Your task to perform on an android device: Show the shopping cart on newegg.com. Search for logitech g pro on newegg.com, select the first entry, add it to the cart, then select checkout. Image 0: 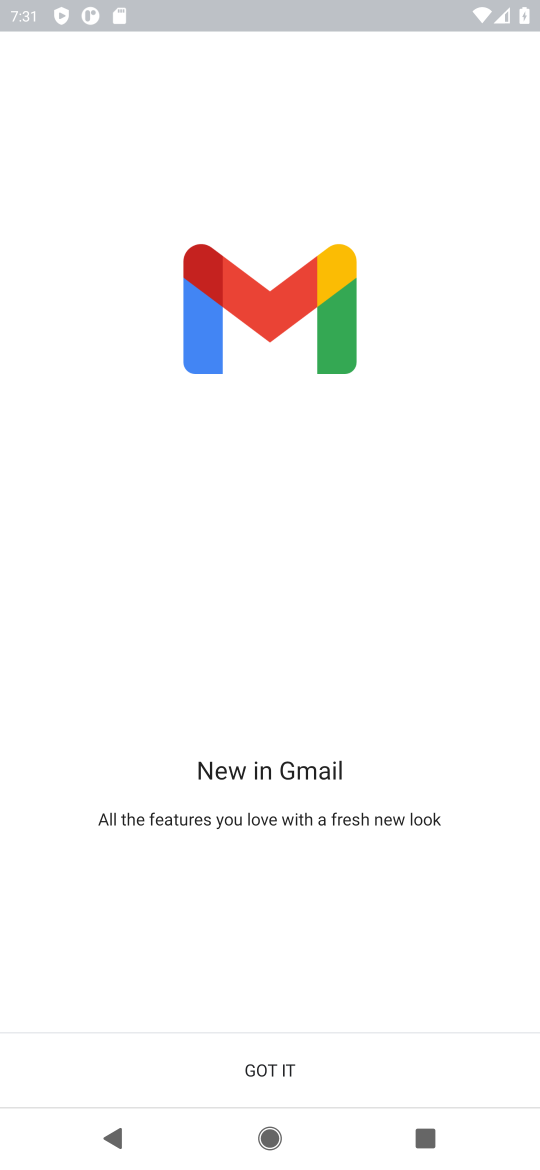
Step 0: press home button
Your task to perform on an android device: Show the shopping cart on newegg.com. Search for logitech g pro on newegg.com, select the first entry, add it to the cart, then select checkout. Image 1: 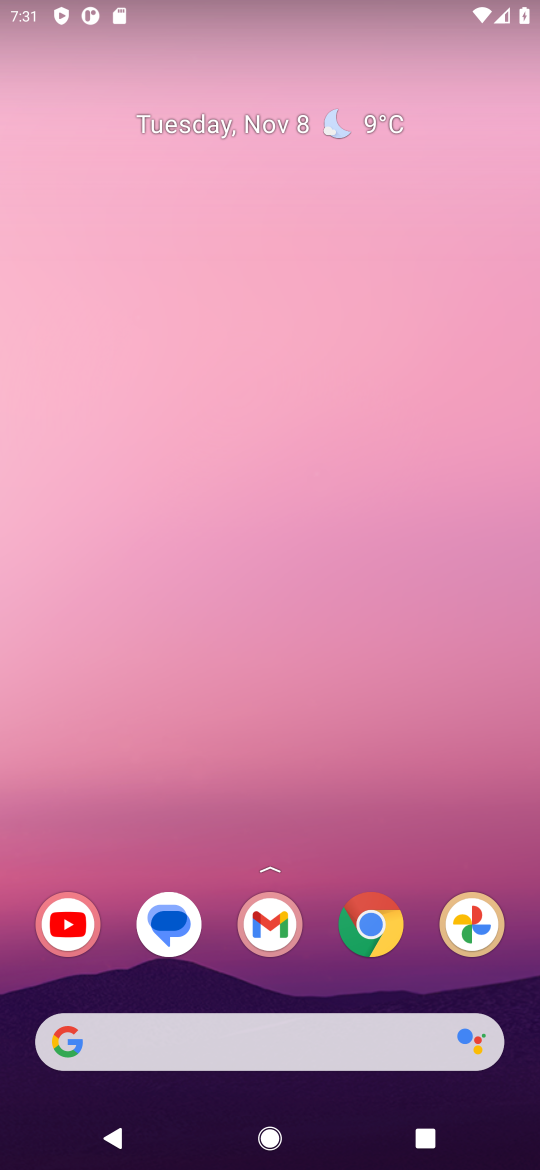
Step 1: drag from (232, 971) to (161, 161)
Your task to perform on an android device: Show the shopping cart on newegg.com. Search for logitech g pro on newegg.com, select the first entry, add it to the cart, then select checkout. Image 2: 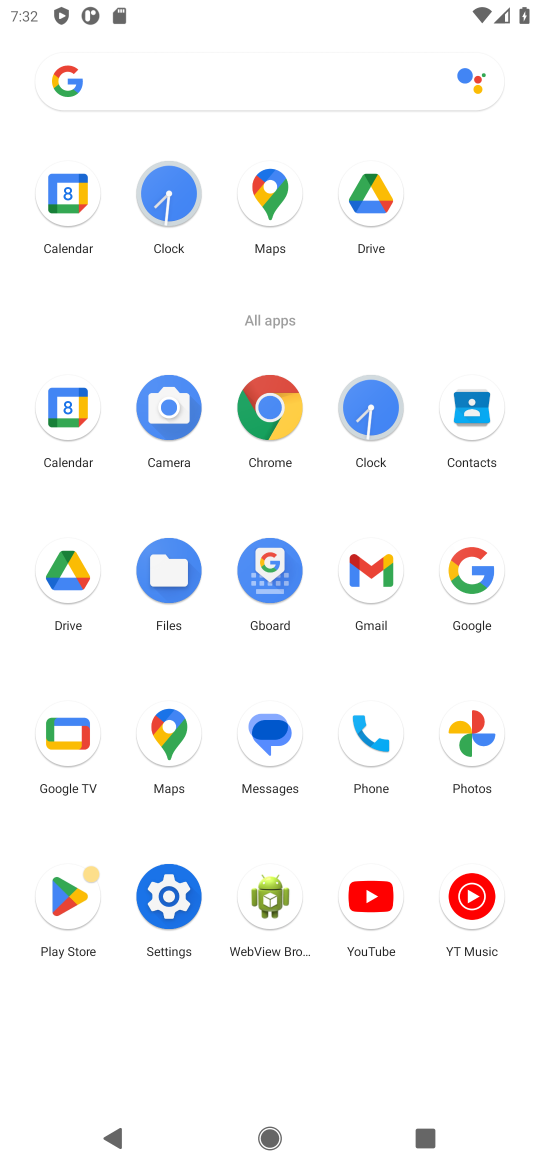
Step 2: click (458, 567)
Your task to perform on an android device: Show the shopping cart on newegg.com. Search for logitech g pro on newegg.com, select the first entry, add it to the cart, then select checkout. Image 3: 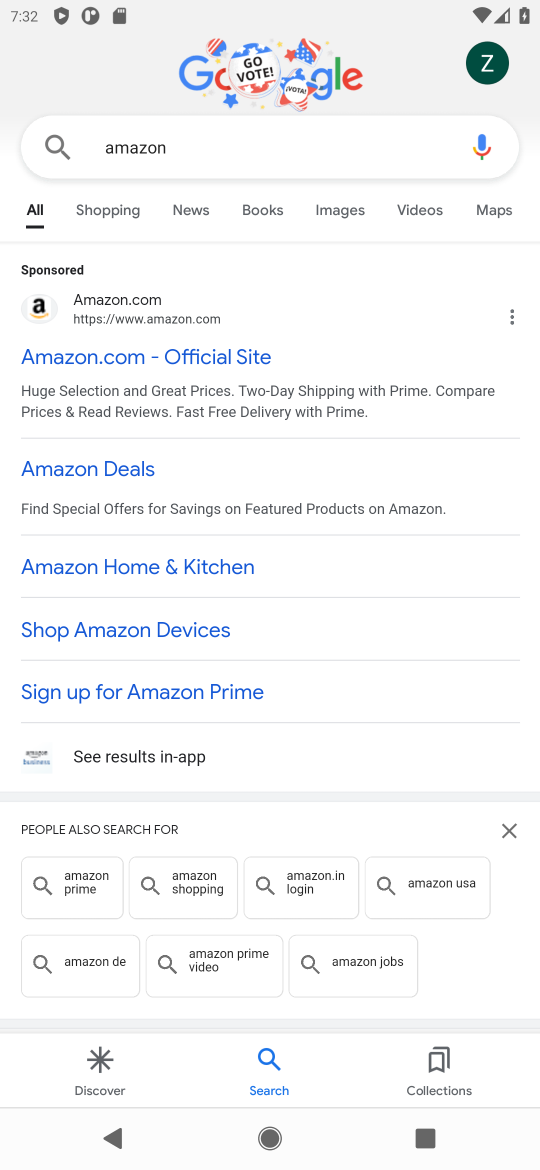
Step 3: click (235, 160)
Your task to perform on an android device: Show the shopping cart on newegg.com. Search for logitech g pro on newegg.com, select the first entry, add it to the cart, then select checkout. Image 4: 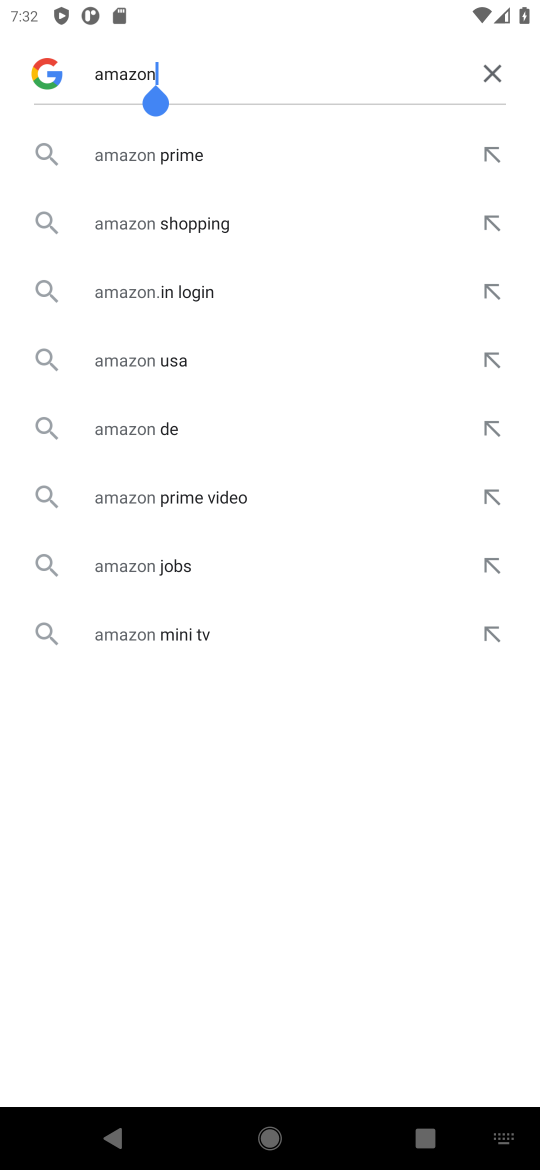
Step 4: click (489, 75)
Your task to perform on an android device: Show the shopping cart on newegg.com. Search for logitech g pro on newegg.com, select the first entry, add it to the cart, then select checkout. Image 5: 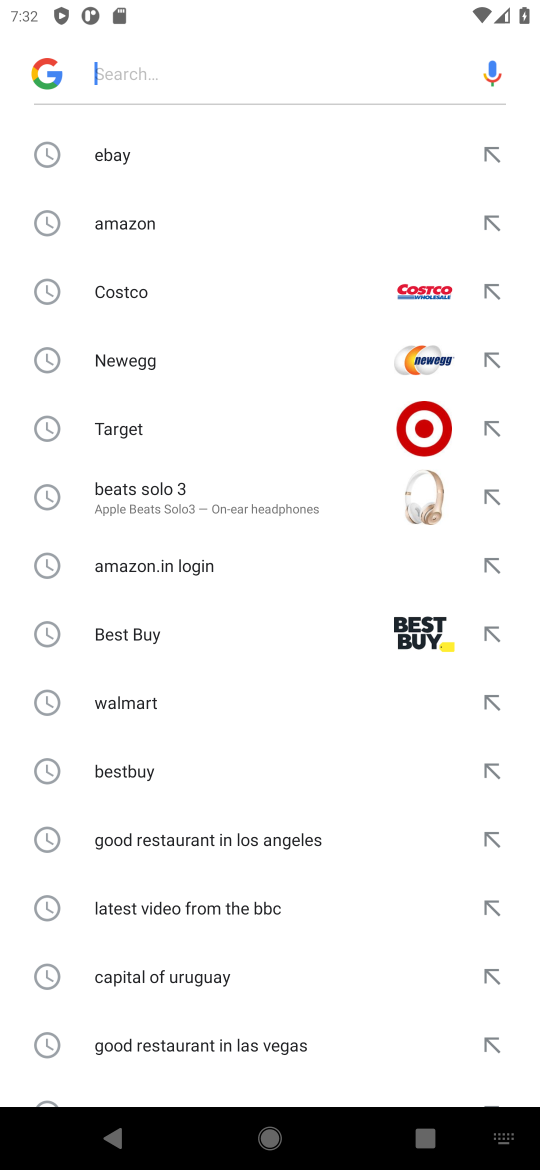
Step 5: type "newegg.com"
Your task to perform on an android device: Show the shopping cart on newegg.com. Search for logitech g pro on newegg.com, select the first entry, add it to the cart, then select checkout. Image 6: 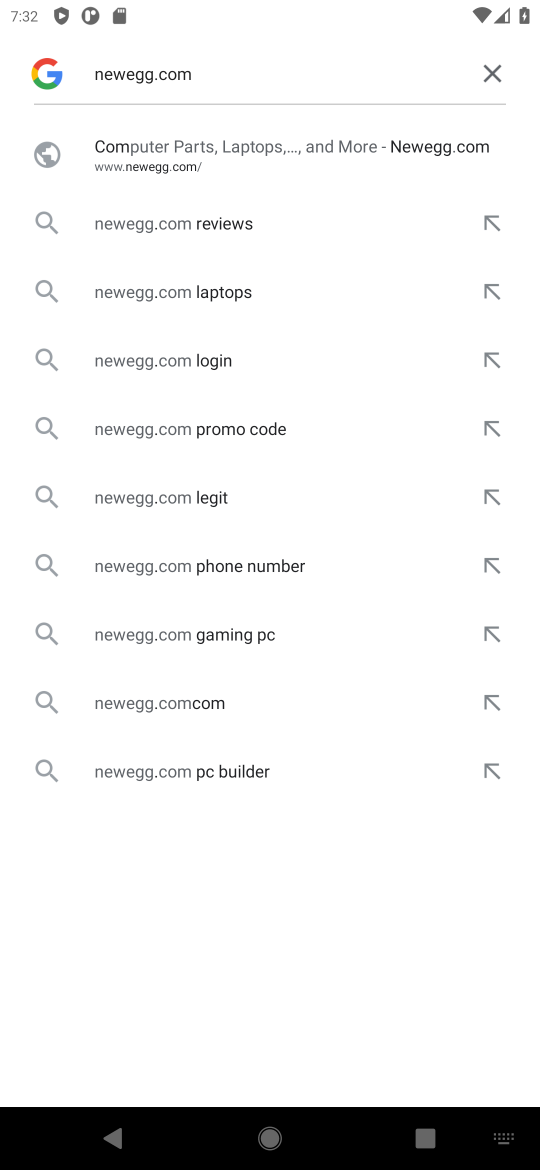
Step 6: click (165, 162)
Your task to perform on an android device: Show the shopping cart on newegg.com. Search for logitech g pro on newegg.com, select the first entry, add it to the cart, then select checkout. Image 7: 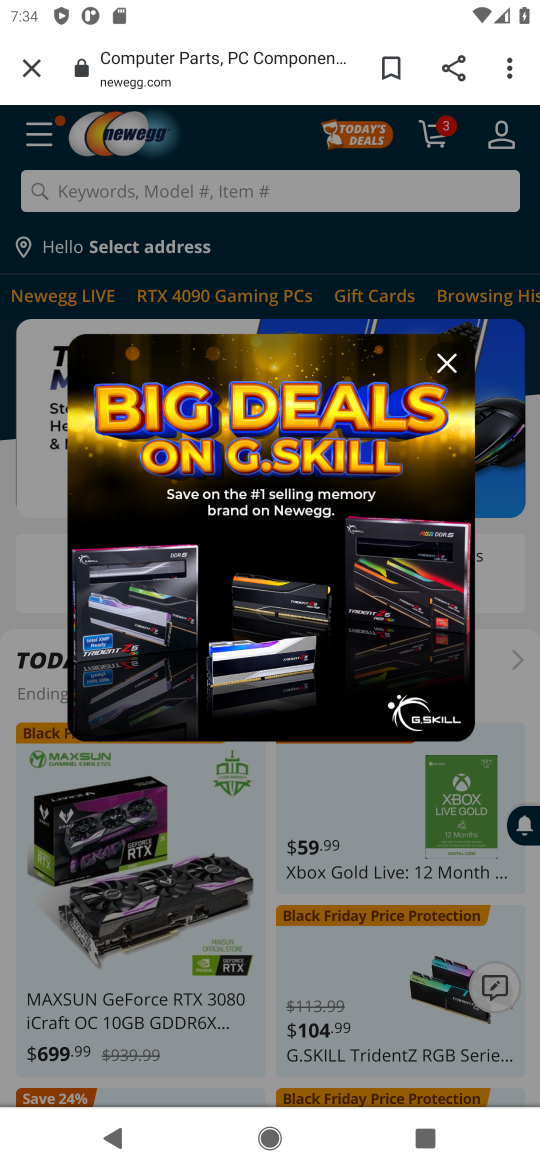
Step 7: click (449, 366)
Your task to perform on an android device: Show the shopping cart on newegg.com. Search for logitech g pro on newegg.com, select the first entry, add it to the cart, then select checkout. Image 8: 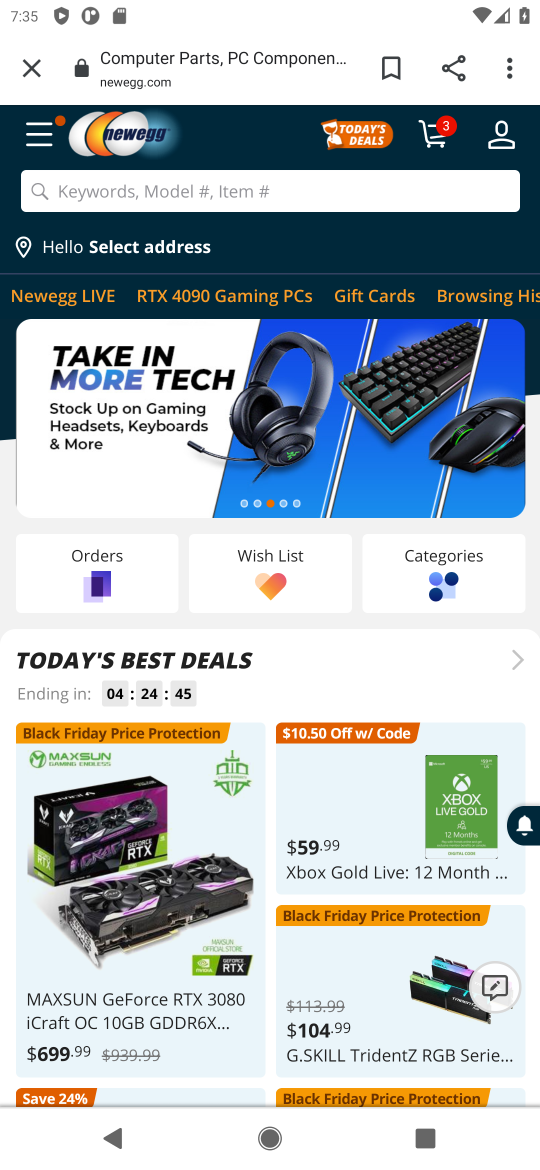
Step 8: click (229, 173)
Your task to perform on an android device: Show the shopping cart on newegg.com. Search for logitech g pro on newegg.com, select the first entry, add it to the cart, then select checkout. Image 9: 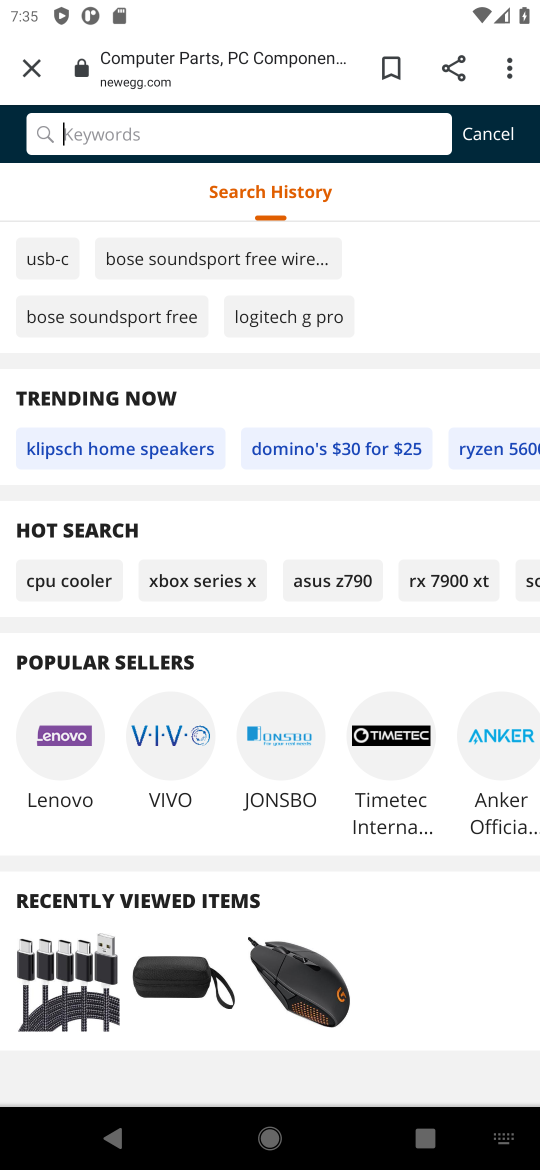
Step 9: click (229, 189)
Your task to perform on an android device: Show the shopping cart on newegg.com. Search for logitech g pro on newegg.com, select the first entry, add it to the cart, then select checkout. Image 10: 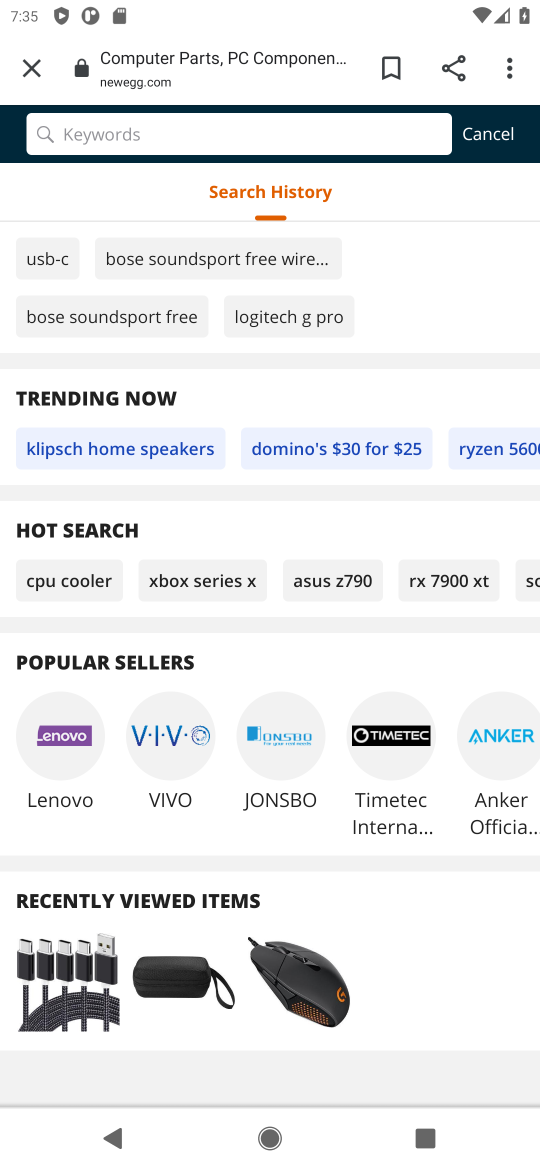
Step 10: click (273, 142)
Your task to perform on an android device: Show the shopping cart on newegg.com. Search for logitech g pro on newegg.com, select the first entry, add it to the cart, then select checkout. Image 11: 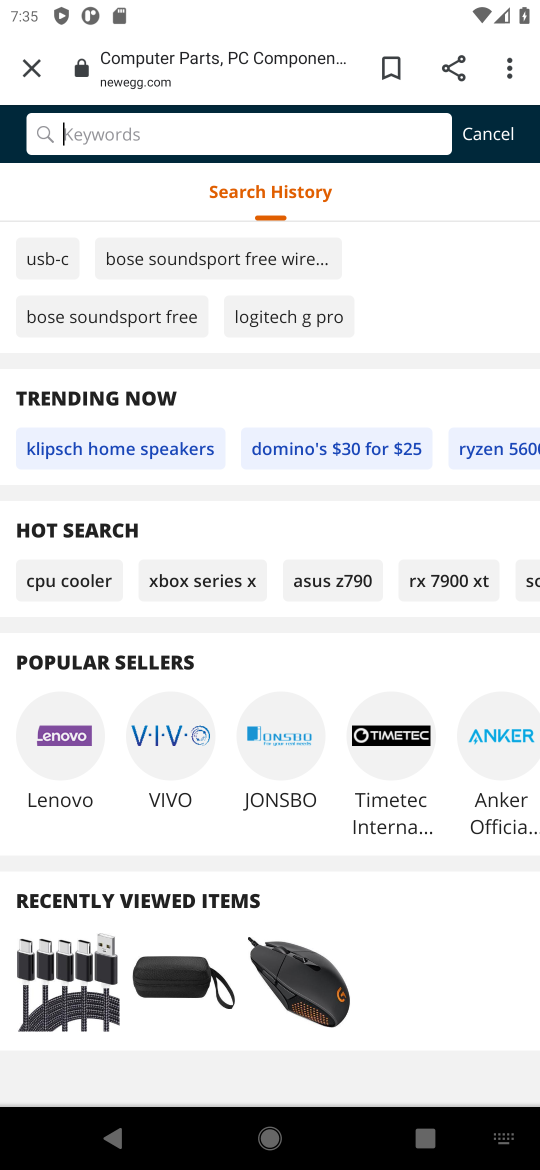
Step 11: type " logitech g pro "
Your task to perform on an android device: Show the shopping cart on newegg.com. Search for logitech g pro on newegg.com, select the first entry, add it to the cart, then select checkout. Image 12: 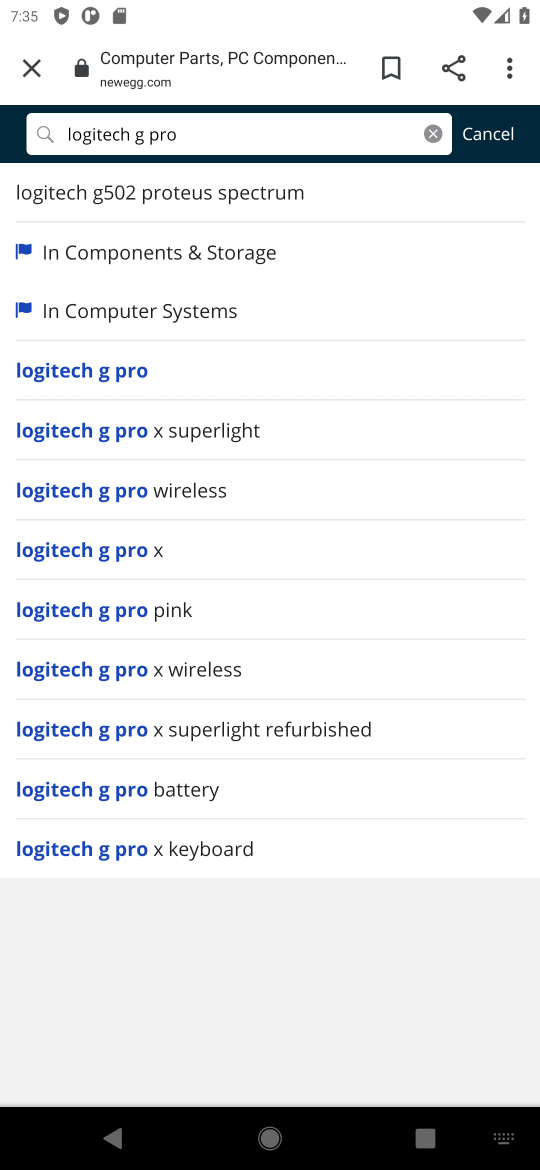
Step 12: click (115, 370)
Your task to perform on an android device: Show the shopping cart on newegg.com. Search for logitech g pro on newegg.com, select the first entry, add it to the cart, then select checkout. Image 13: 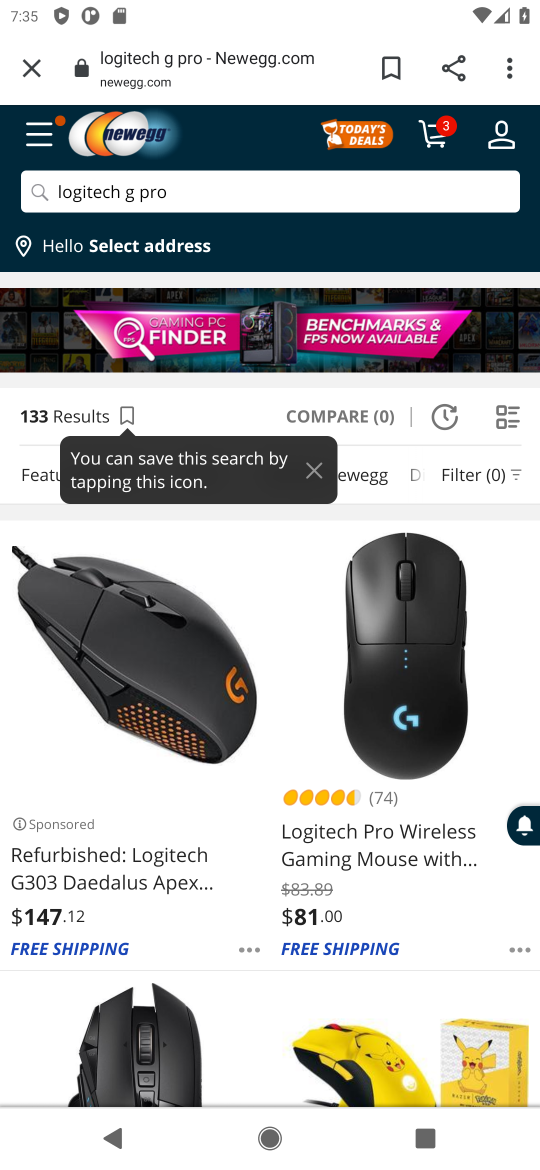
Step 13: click (95, 791)
Your task to perform on an android device: Show the shopping cart on newegg.com. Search for logitech g pro on newegg.com, select the first entry, add it to the cart, then select checkout. Image 14: 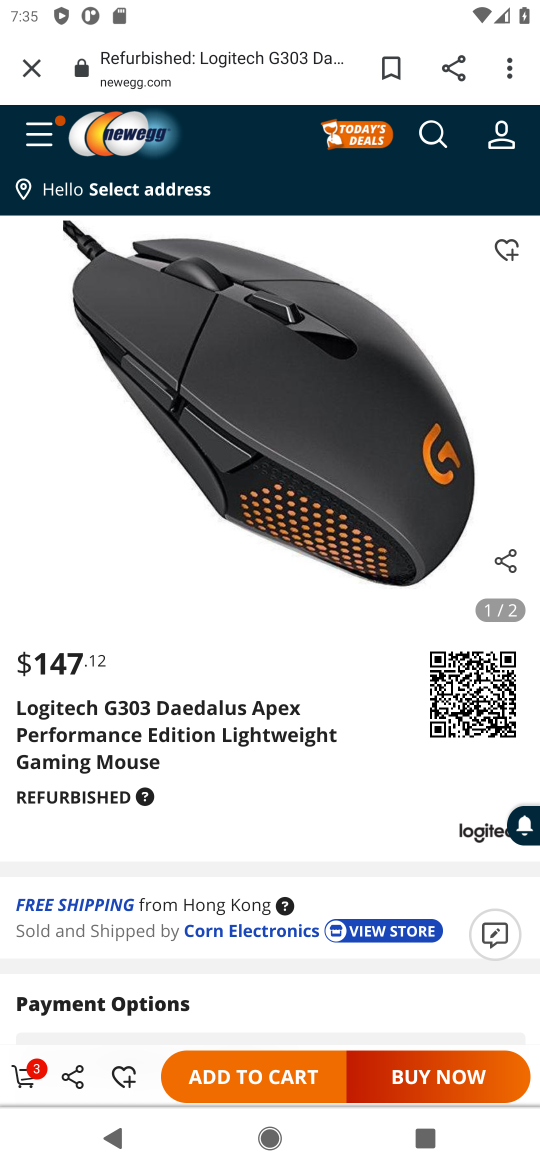
Step 14: click (222, 1073)
Your task to perform on an android device: Show the shopping cart on newegg.com. Search for logitech g pro on newegg.com, select the first entry, add it to the cart, then select checkout. Image 15: 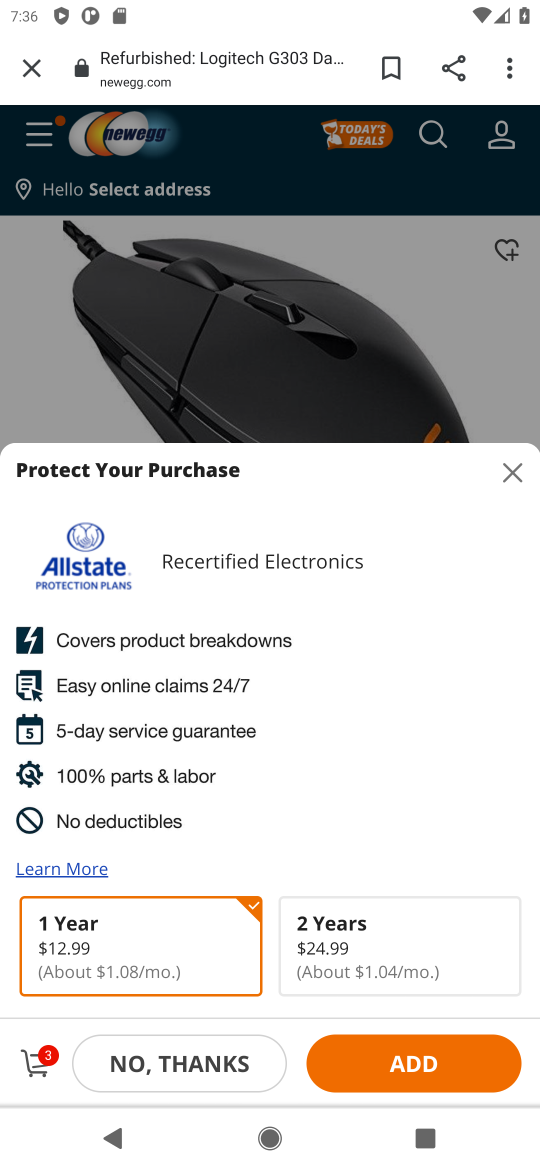
Step 15: click (39, 1063)
Your task to perform on an android device: Show the shopping cart on newegg.com. Search for logitech g pro on newegg.com, select the first entry, add it to the cart, then select checkout. Image 16: 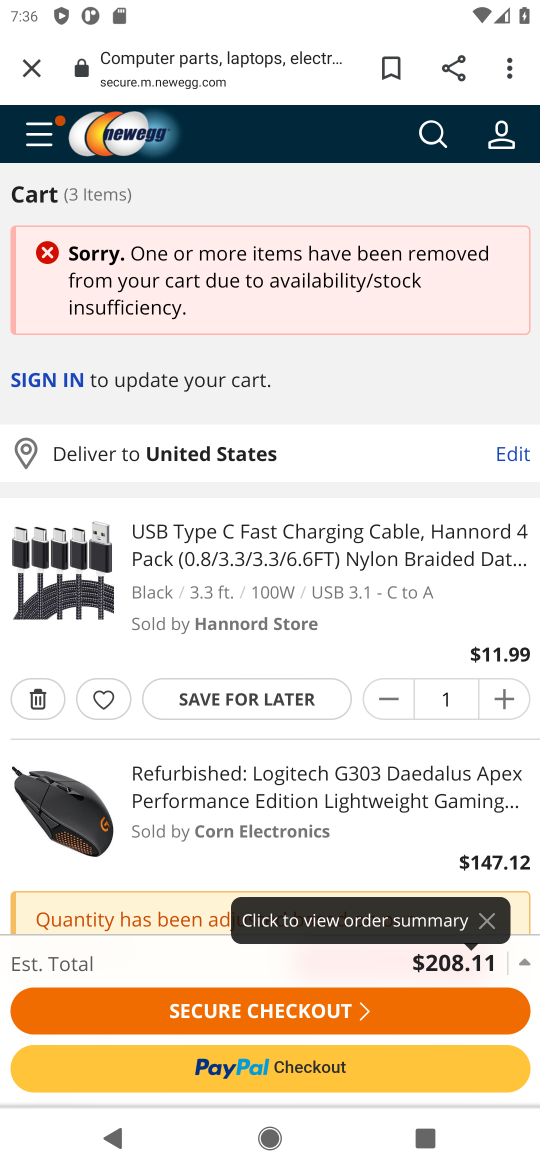
Step 16: click (285, 1018)
Your task to perform on an android device: Show the shopping cart on newegg.com. Search for logitech g pro on newegg.com, select the first entry, add it to the cart, then select checkout. Image 17: 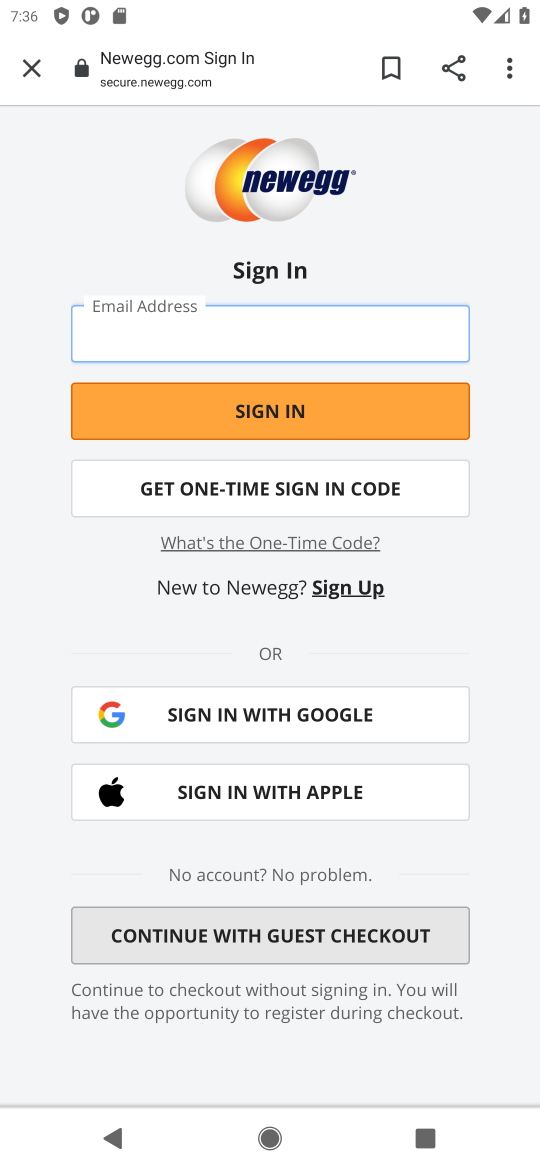
Step 17: task complete